Your task to perform on an android device: toggle airplane mode Image 0: 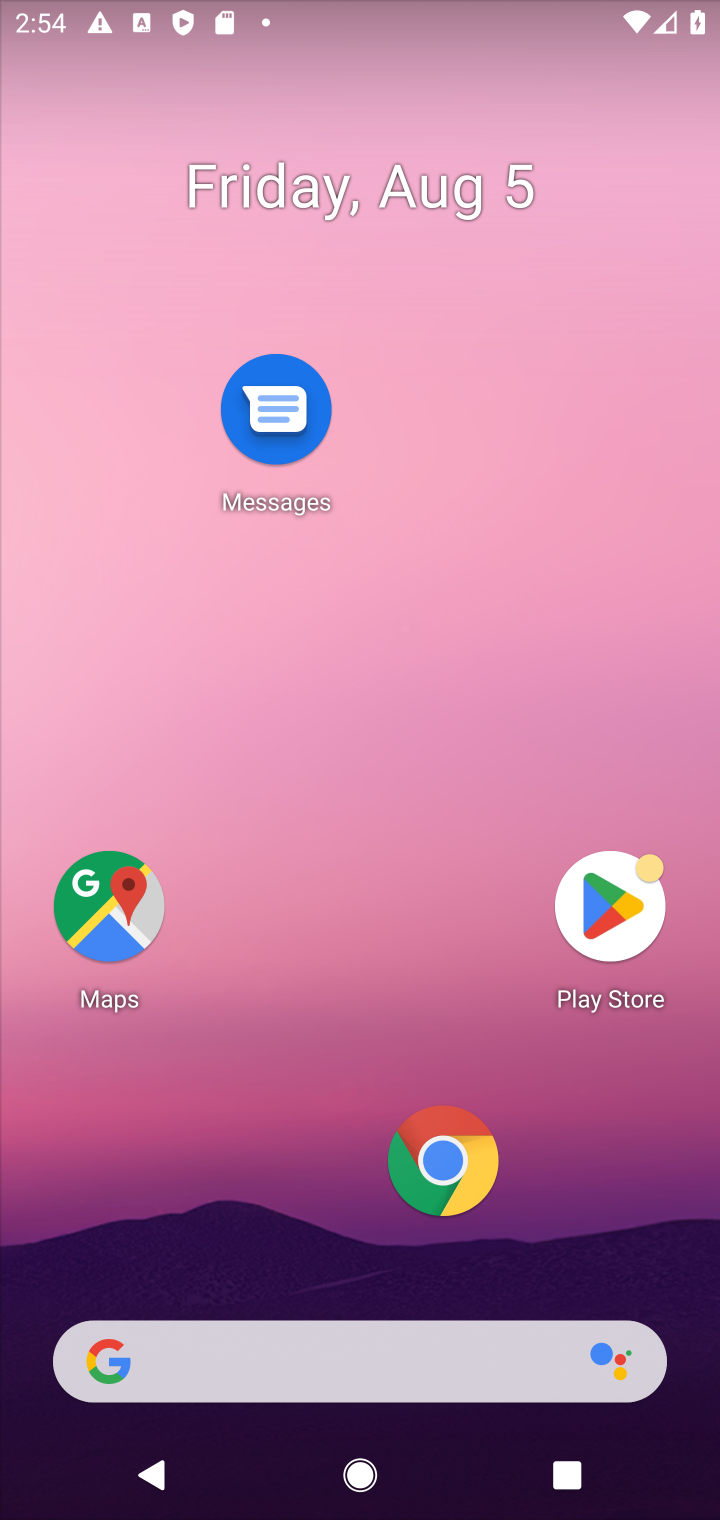
Step 0: drag from (326, 1216) to (341, 340)
Your task to perform on an android device: toggle airplane mode Image 1: 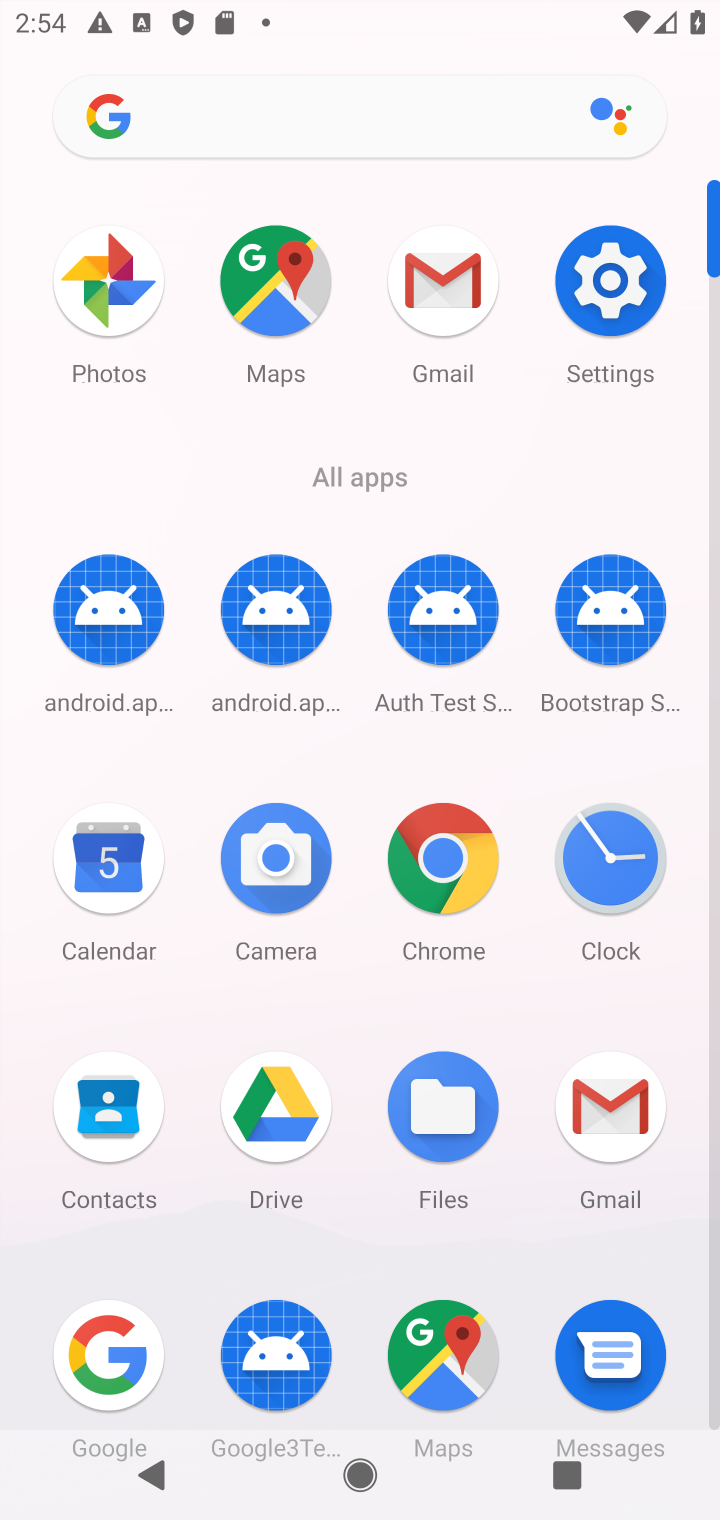
Step 1: click (591, 300)
Your task to perform on an android device: toggle airplane mode Image 2: 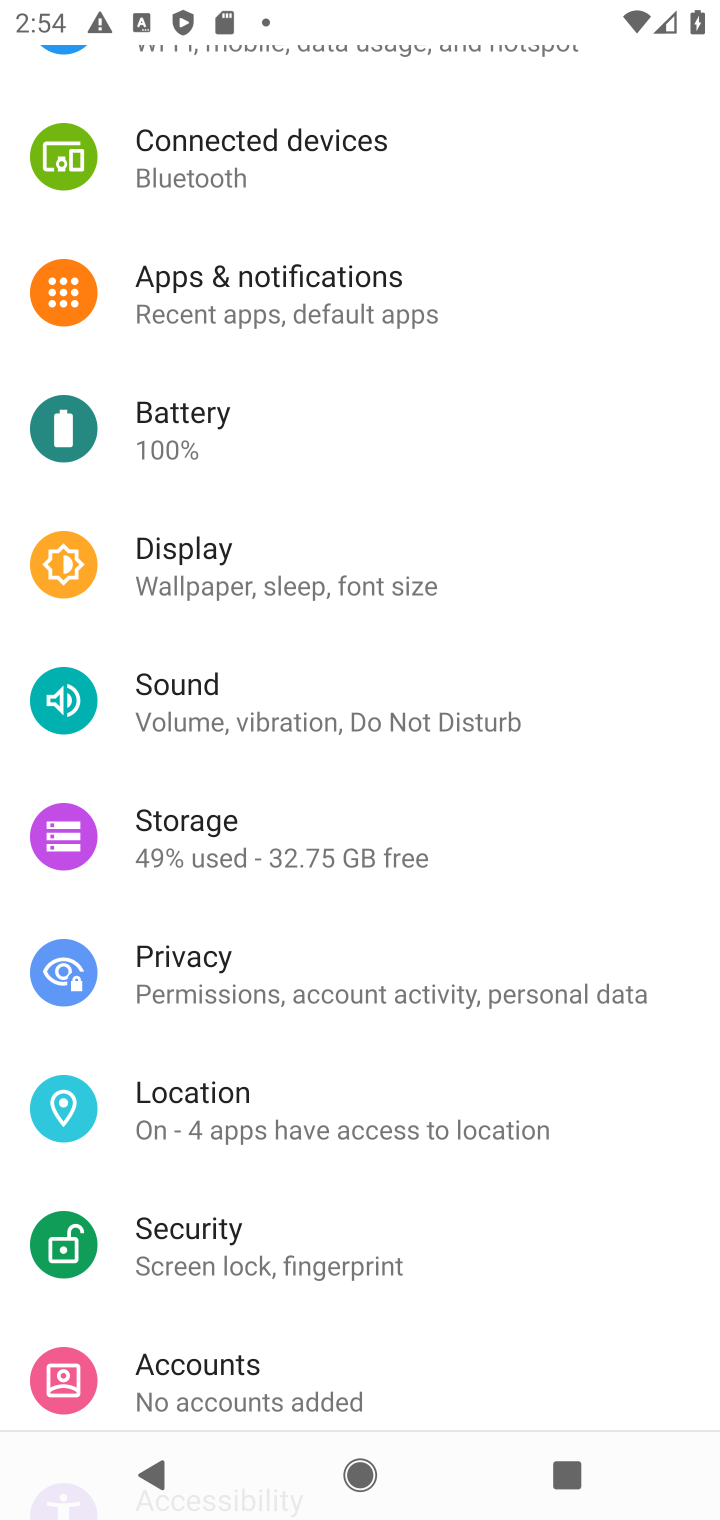
Step 2: drag from (367, 313) to (393, 1237)
Your task to perform on an android device: toggle airplane mode Image 3: 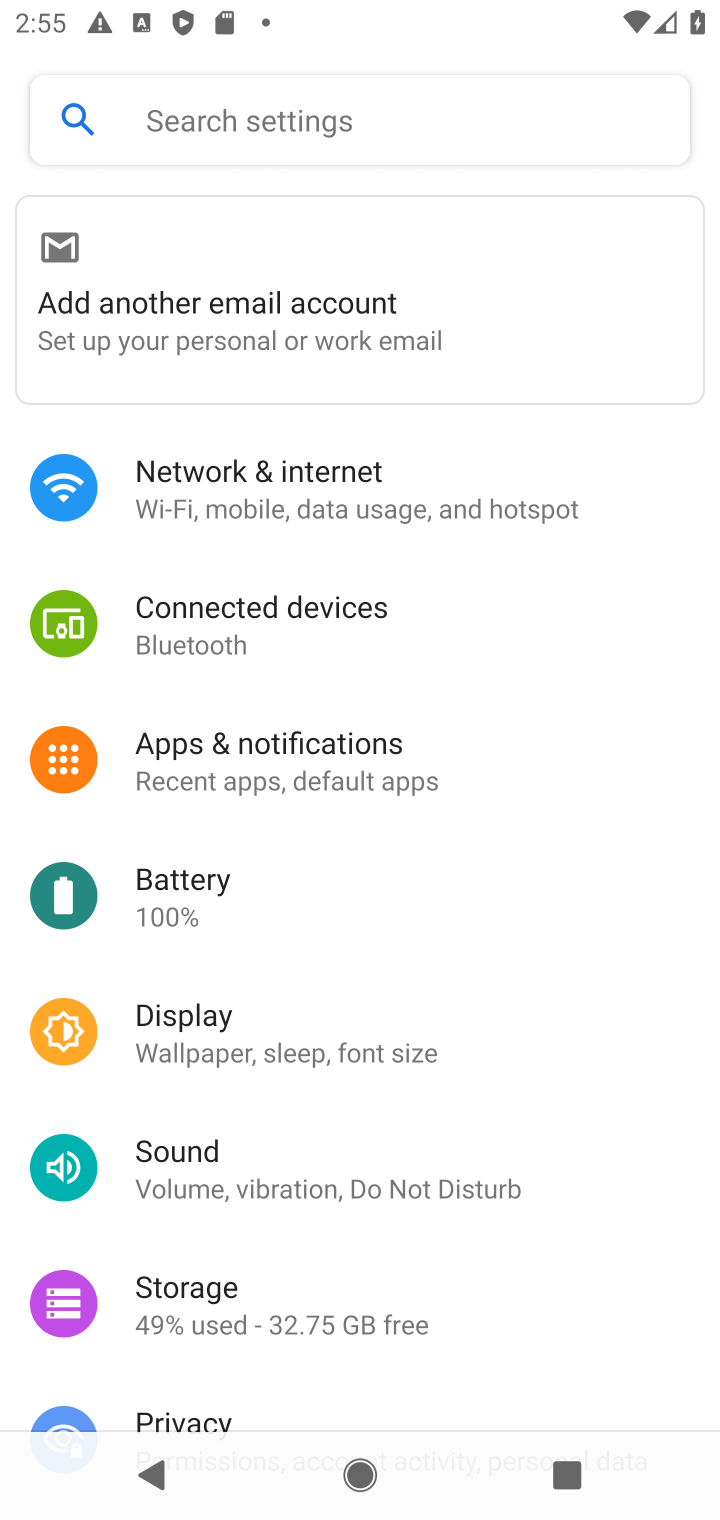
Step 3: click (360, 489)
Your task to perform on an android device: toggle airplane mode Image 4: 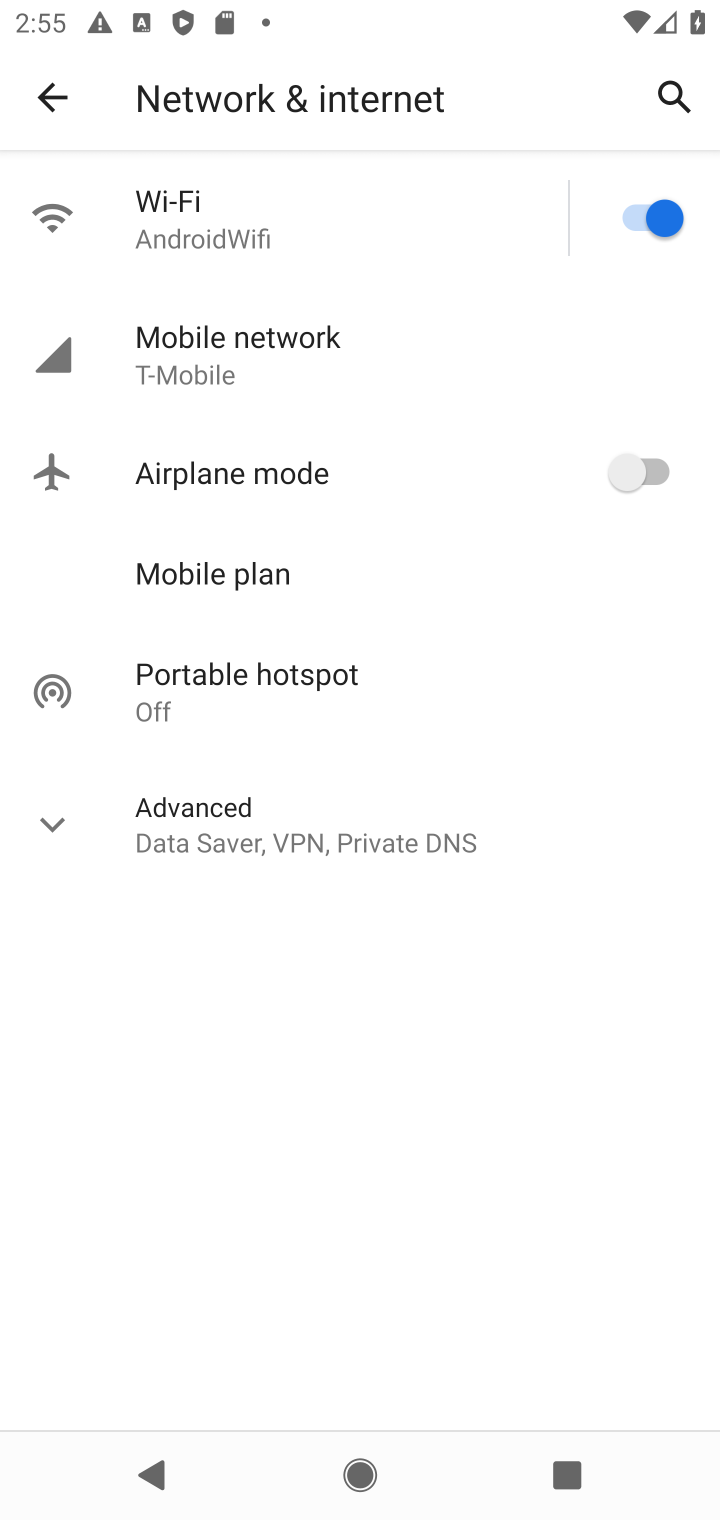
Step 4: click (653, 459)
Your task to perform on an android device: toggle airplane mode Image 5: 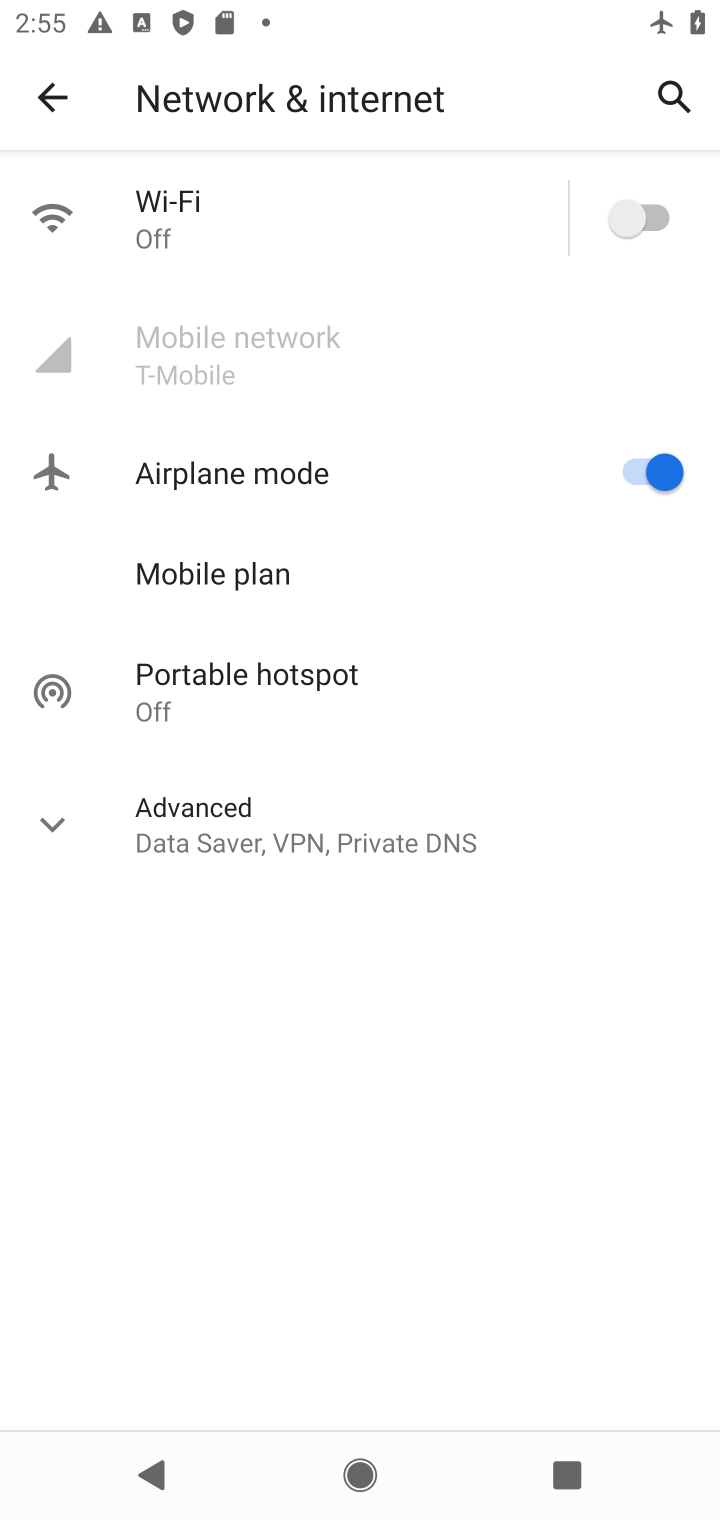
Step 5: task complete